Your task to perform on an android device: Show me the alarms in the clock app Image 0: 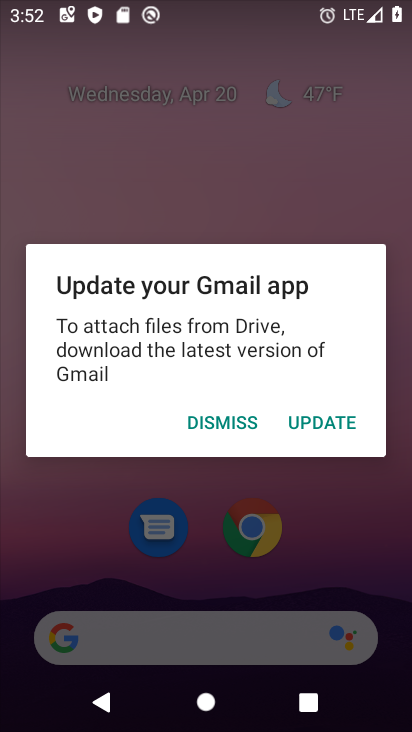
Step 0: press home button
Your task to perform on an android device: Show me the alarms in the clock app Image 1: 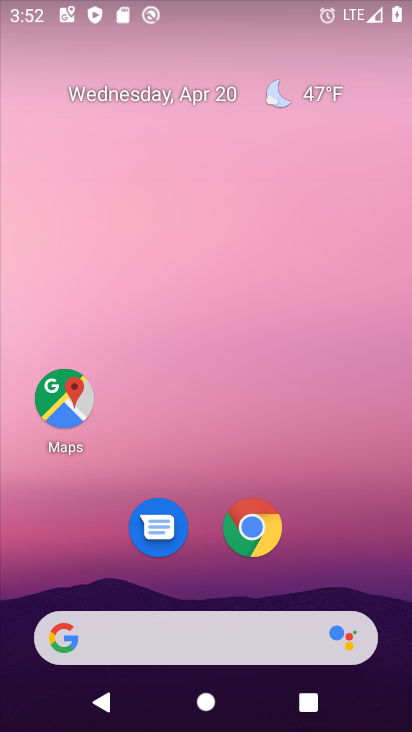
Step 1: drag from (307, 579) to (356, 189)
Your task to perform on an android device: Show me the alarms in the clock app Image 2: 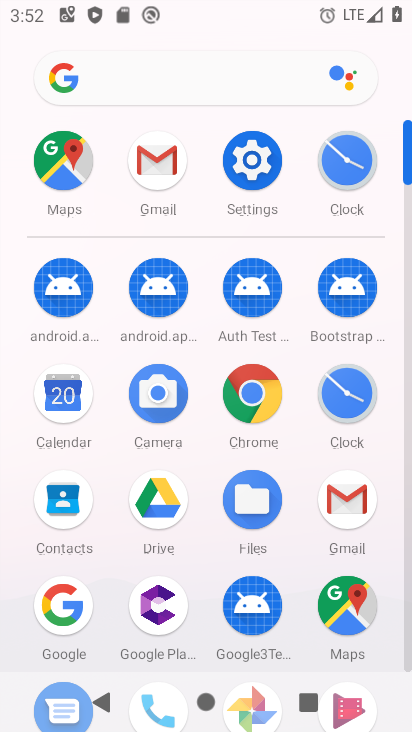
Step 2: click (331, 404)
Your task to perform on an android device: Show me the alarms in the clock app Image 3: 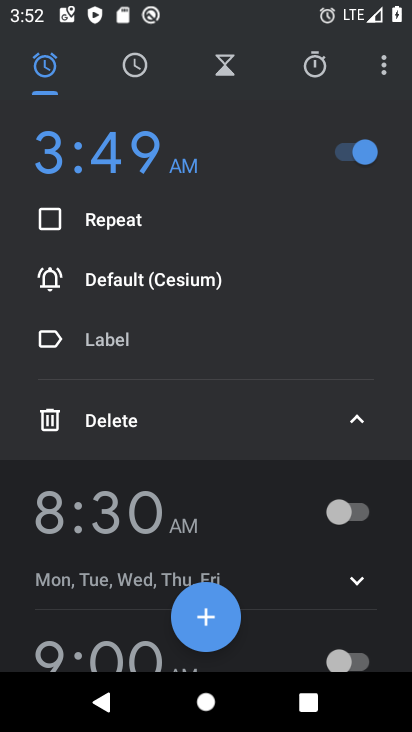
Step 3: task complete